Your task to perform on an android device: Search for pizza restaurants on Maps Image 0: 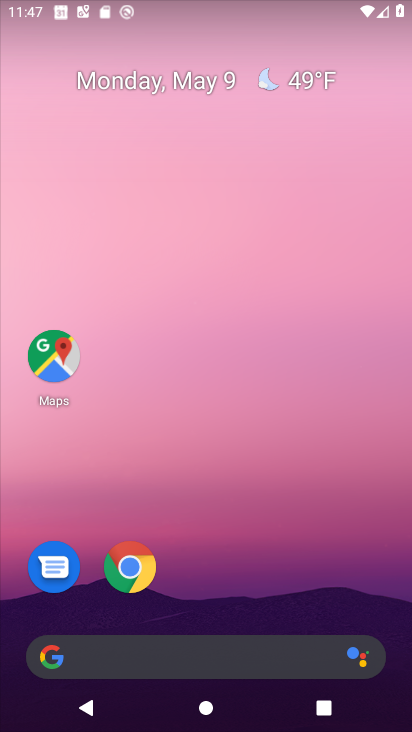
Step 0: click (56, 358)
Your task to perform on an android device: Search for pizza restaurants on Maps Image 1: 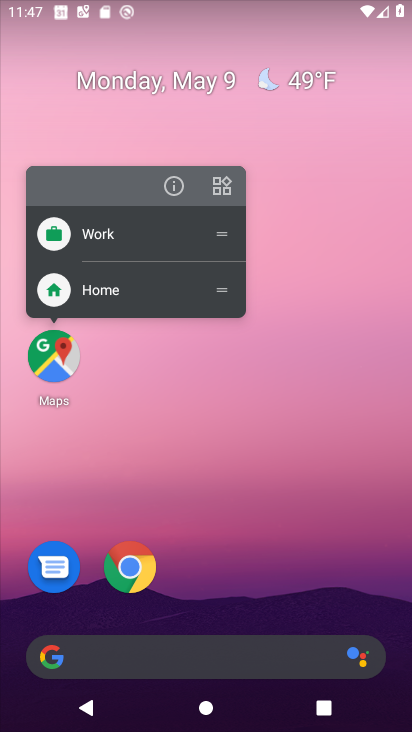
Step 1: click (56, 357)
Your task to perform on an android device: Search for pizza restaurants on Maps Image 2: 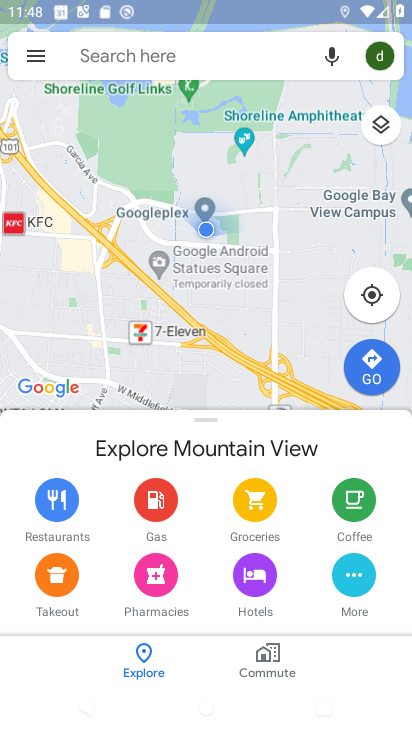
Step 2: click (156, 53)
Your task to perform on an android device: Search for pizza restaurants on Maps Image 3: 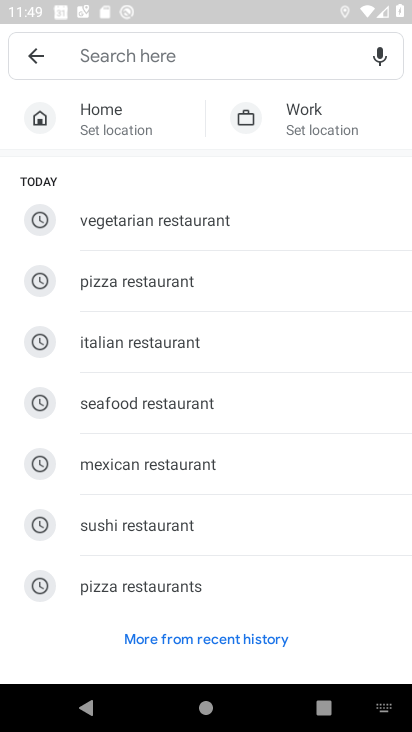
Step 3: click (146, 594)
Your task to perform on an android device: Search for pizza restaurants on Maps Image 4: 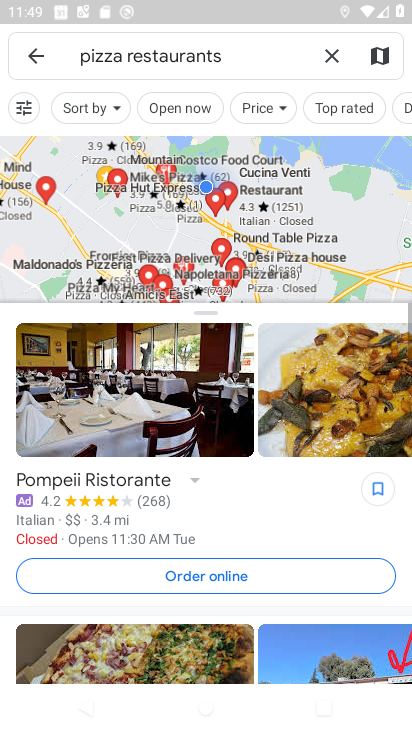
Step 4: task complete